Your task to perform on an android device: open app "eBay: The shopping marketplace" (install if not already installed) and enter user name: "articulated@icloud.com" and password: "excluding" Image 0: 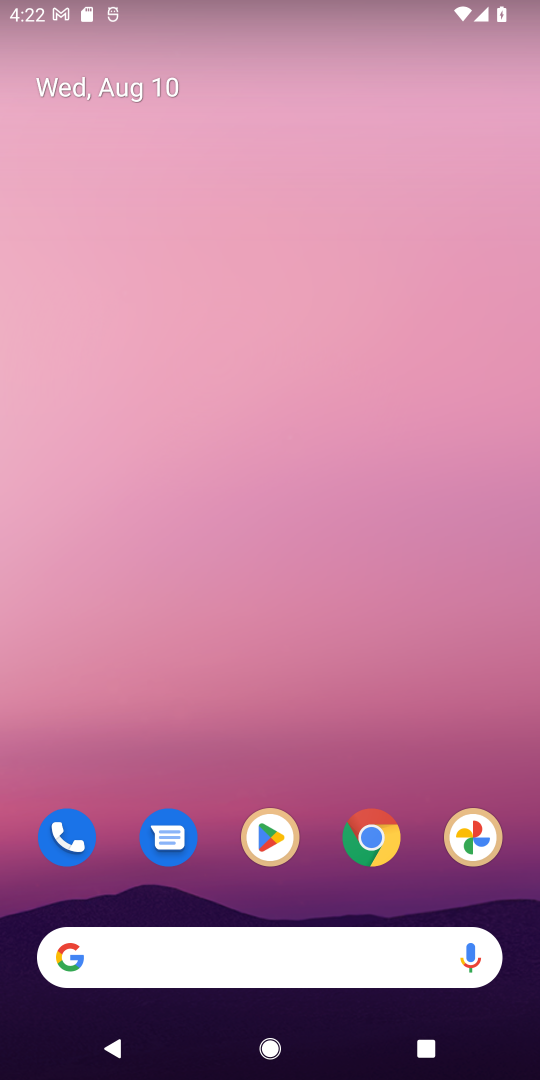
Step 0: press home button
Your task to perform on an android device: open app "eBay: The shopping marketplace" (install if not already installed) and enter user name: "articulated@icloud.com" and password: "excluding" Image 1: 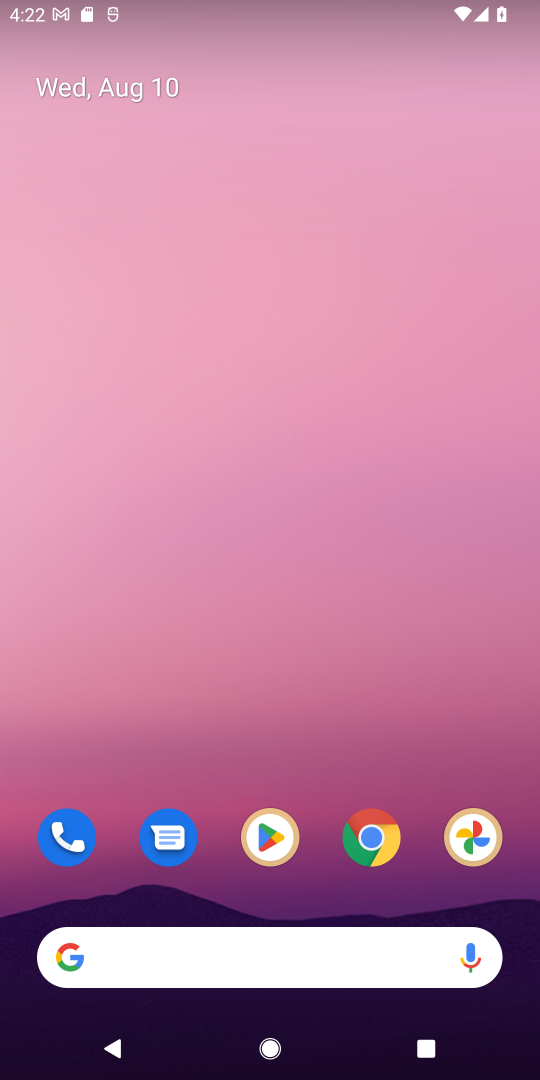
Step 1: click (268, 836)
Your task to perform on an android device: open app "eBay: The shopping marketplace" (install if not already installed) and enter user name: "articulated@icloud.com" and password: "excluding" Image 2: 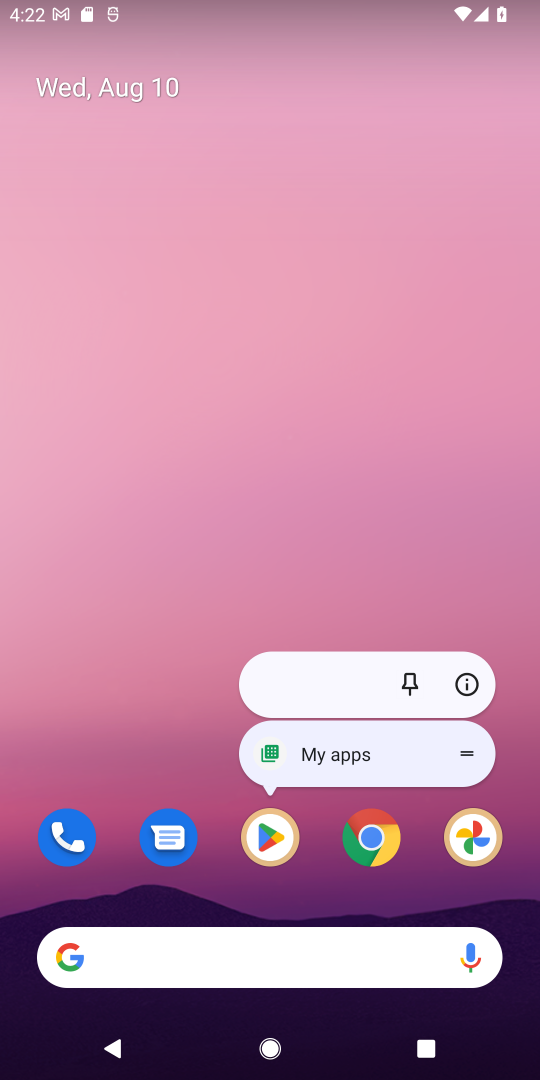
Step 2: click (268, 835)
Your task to perform on an android device: open app "eBay: The shopping marketplace" (install if not already installed) and enter user name: "articulated@icloud.com" and password: "excluding" Image 3: 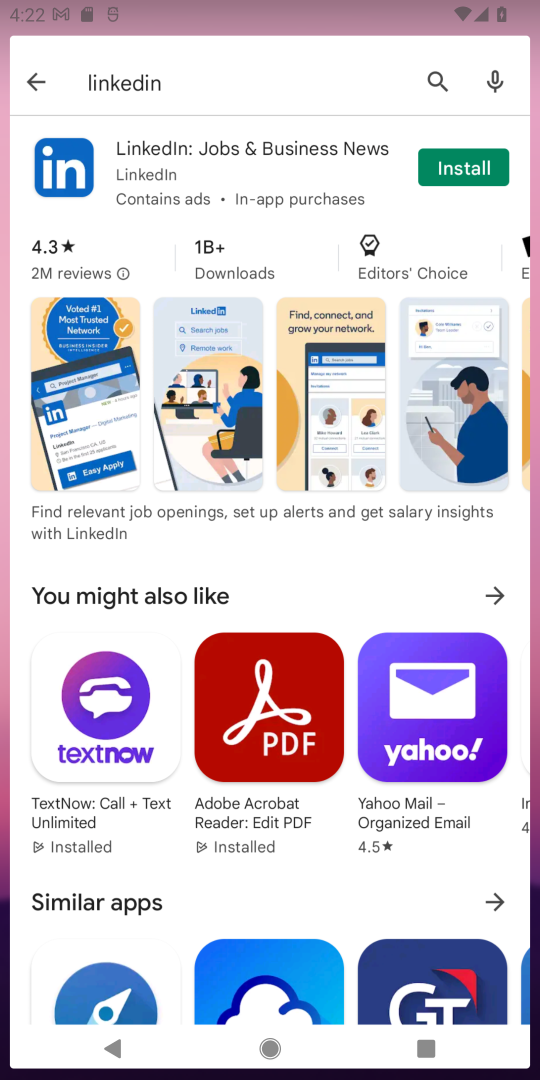
Step 3: click (268, 838)
Your task to perform on an android device: open app "eBay: The shopping marketplace" (install if not already installed) and enter user name: "articulated@icloud.com" and password: "excluding" Image 4: 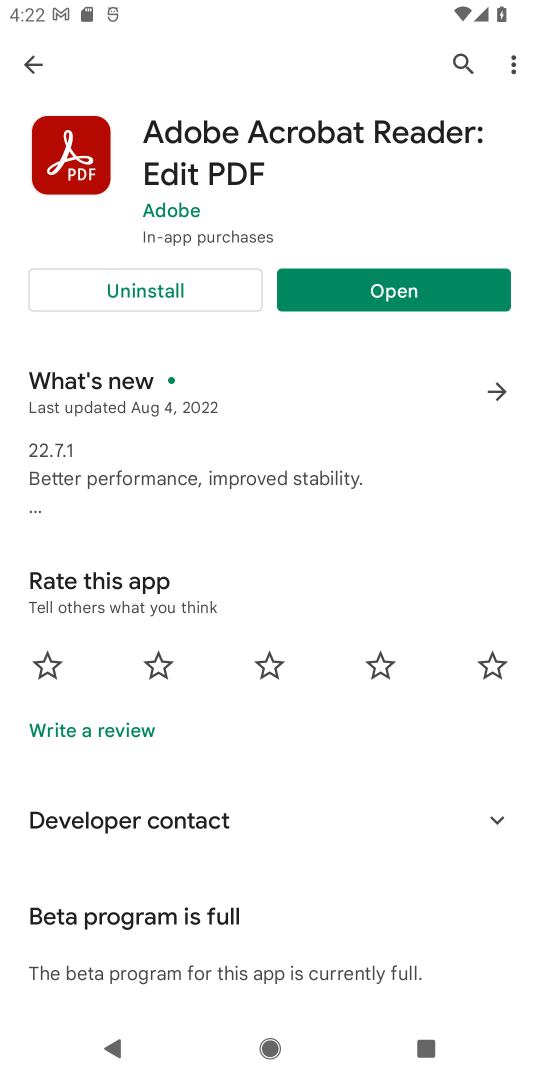
Step 4: click (452, 50)
Your task to perform on an android device: open app "eBay: The shopping marketplace" (install if not already installed) and enter user name: "articulated@icloud.com" and password: "excluding" Image 5: 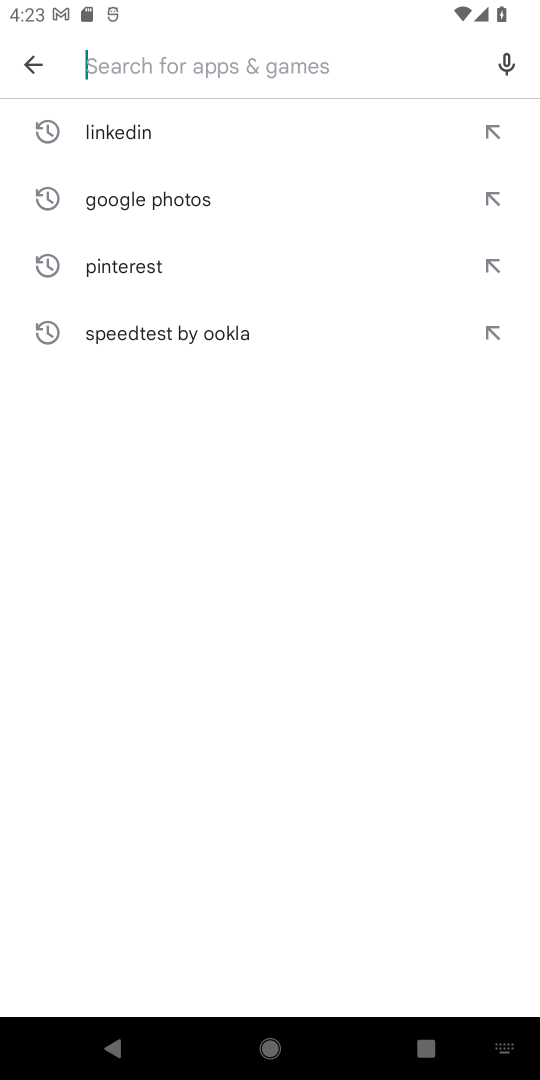
Step 5: type "eBay: The shopping marketplace"
Your task to perform on an android device: open app "eBay: The shopping marketplace" (install if not already installed) and enter user name: "articulated@icloud.com" and password: "excluding" Image 6: 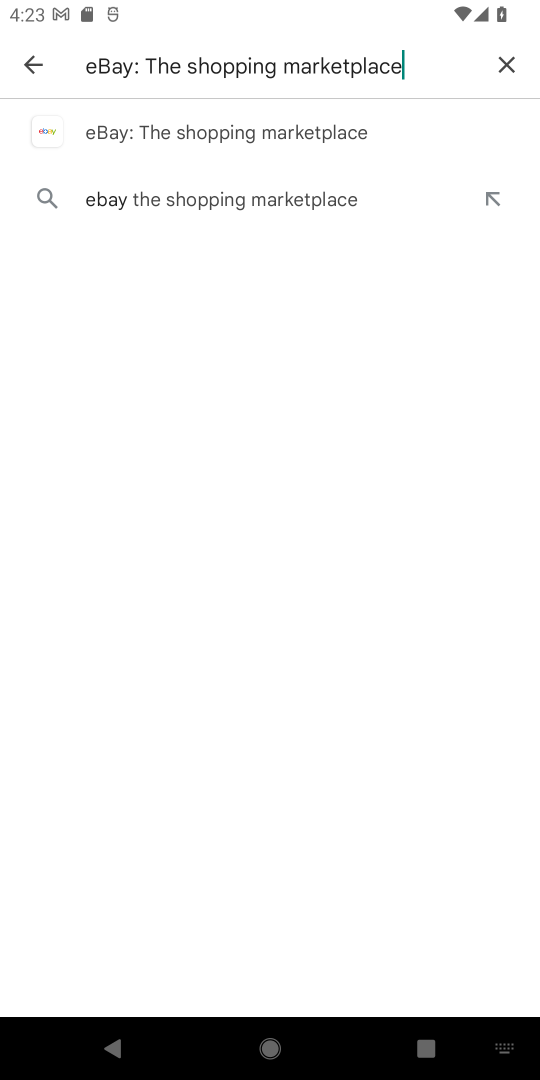
Step 6: click (262, 129)
Your task to perform on an android device: open app "eBay: The shopping marketplace" (install if not already installed) and enter user name: "articulated@icloud.com" and password: "excluding" Image 7: 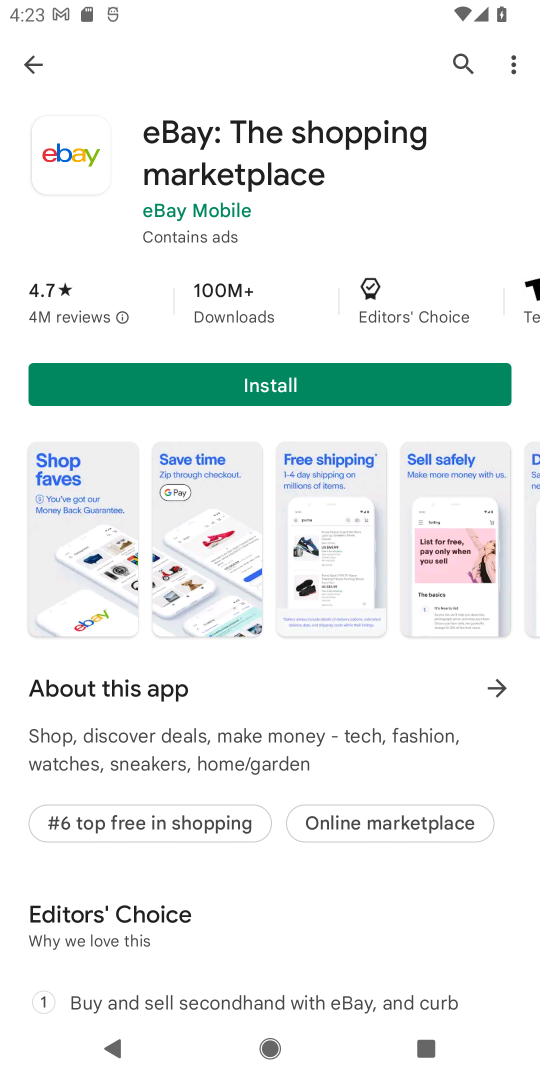
Step 7: click (264, 378)
Your task to perform on an android device: open app "eBay: The shopping marketplace" (install if not already installed) and enter user name: "articulated@icloud.com" and password: "excluding" Image 8: 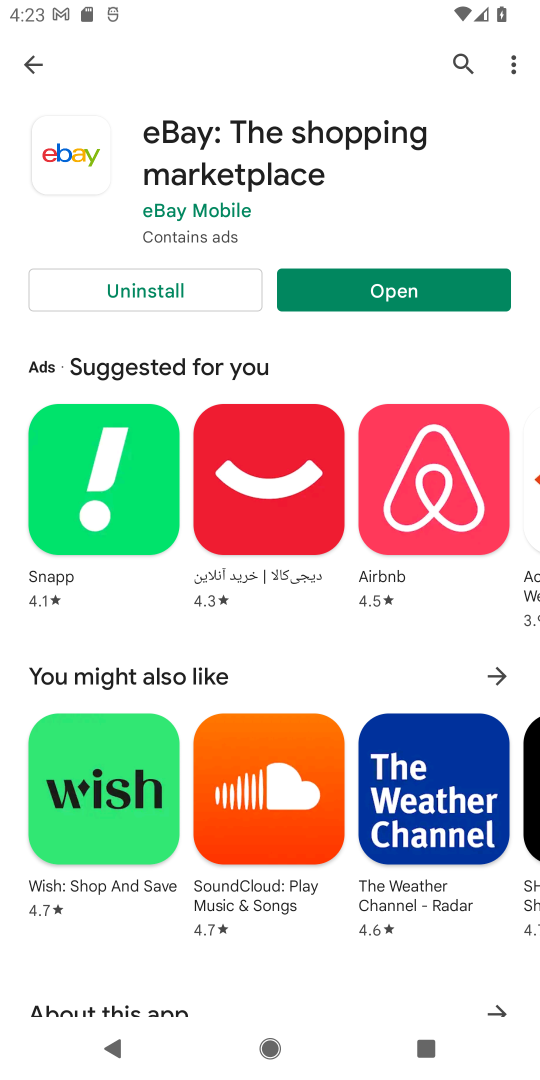
Step 8: click (423, 304)
Your task to perform on an android device: open app "eBay: The shopping marketplace" (install if not already installed) and enter user name: "articulated@icloud.com" and password: "excluding" Image 9: 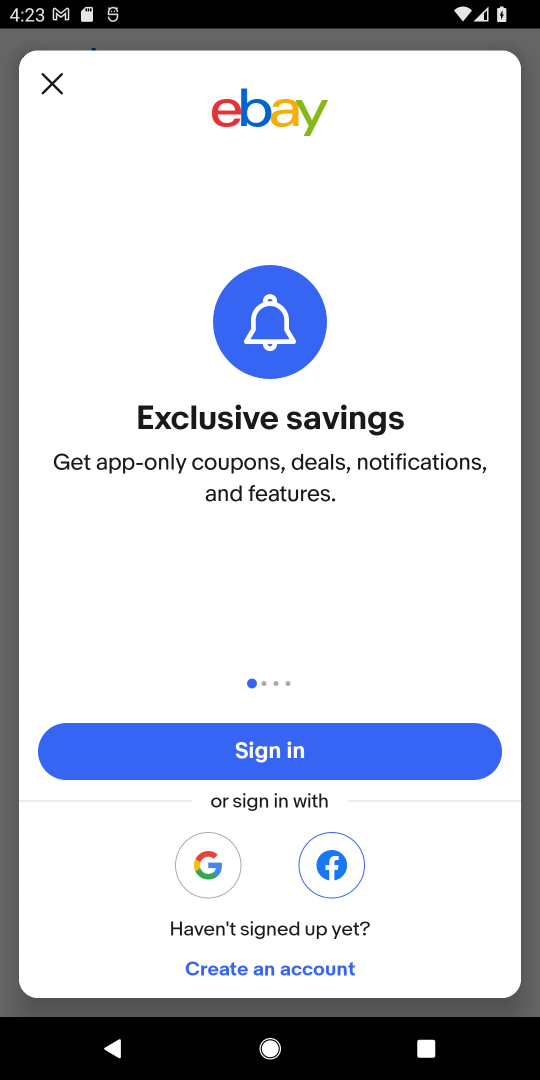
Step 9: click (273, 742)
Your task to perform on an android device: open app "eBay: The shopping marketplace" (install if not already installed) and enter user name: "articulated@icloud.com" and password: "excluding" Image 10: 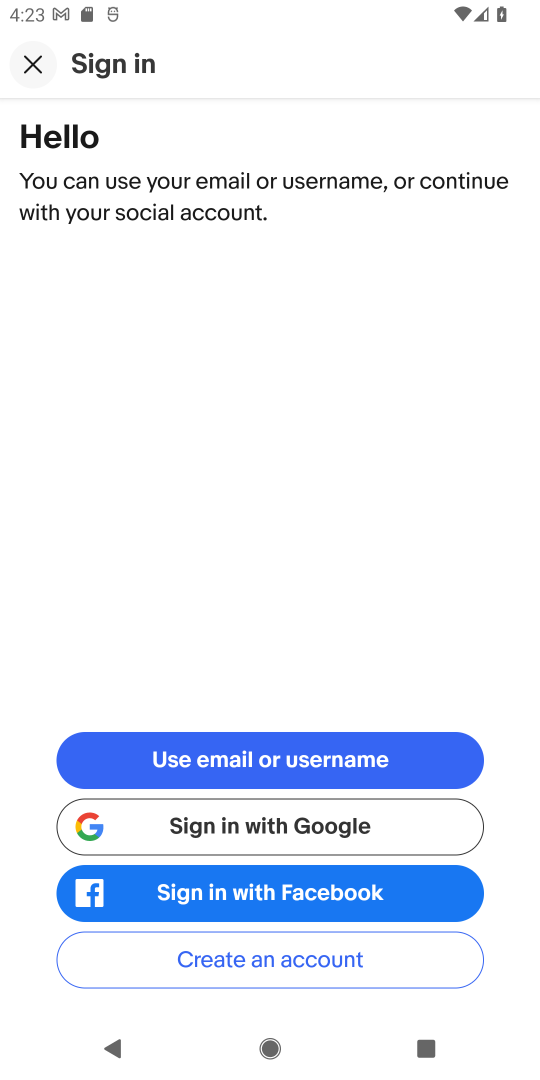
Step 10: click (325, 761)
Your task to perform on an android device: open app "eBay: The shopping marketplace" (install if not already installed) and enter user name: "articulated@icloud.com" and password: "excluding" Image 11: 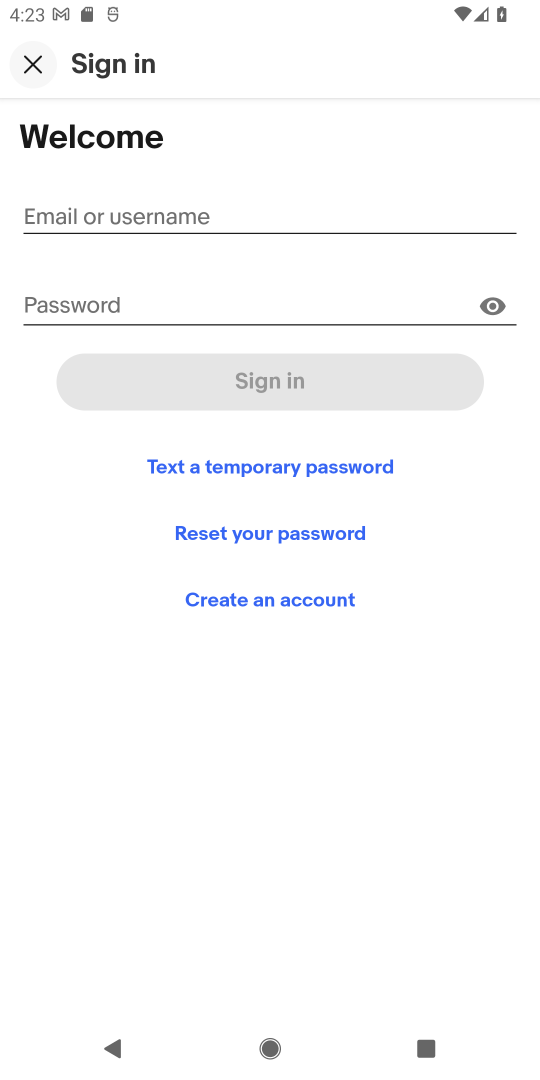
Step 11: click (193, 201)
Your task to perform on an android device: open app "eBay: The shopping marketplace" (install if not already installed) and enter user name: "articulated@icloud.com" and password: "excluding" Image 12: 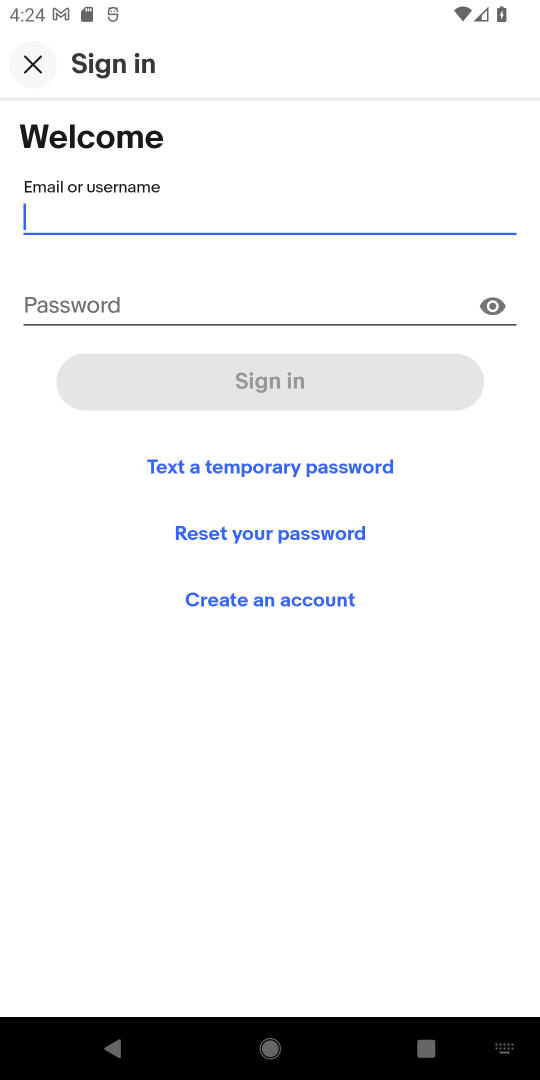
Step 12: type "articulated@icloud.com"
Your task to perform on an android device: open app "eBay: The shopping marketplace" (install if not already installed) and enter user name: "articulated@icloud.com" and password: "excluding" Image 13: 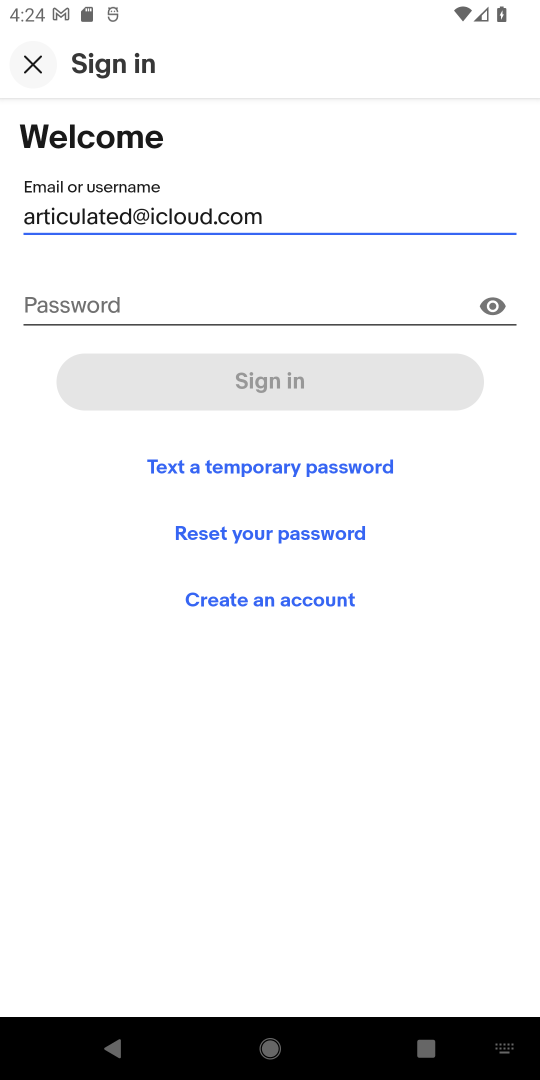
Step 13: click (86, 296)
Your task to perform on an android device: open app "eBay: The shopping marketplace" (install if not already installed) and enter user name: "articulated@icloud.com" and password: "excluding" Image 14: 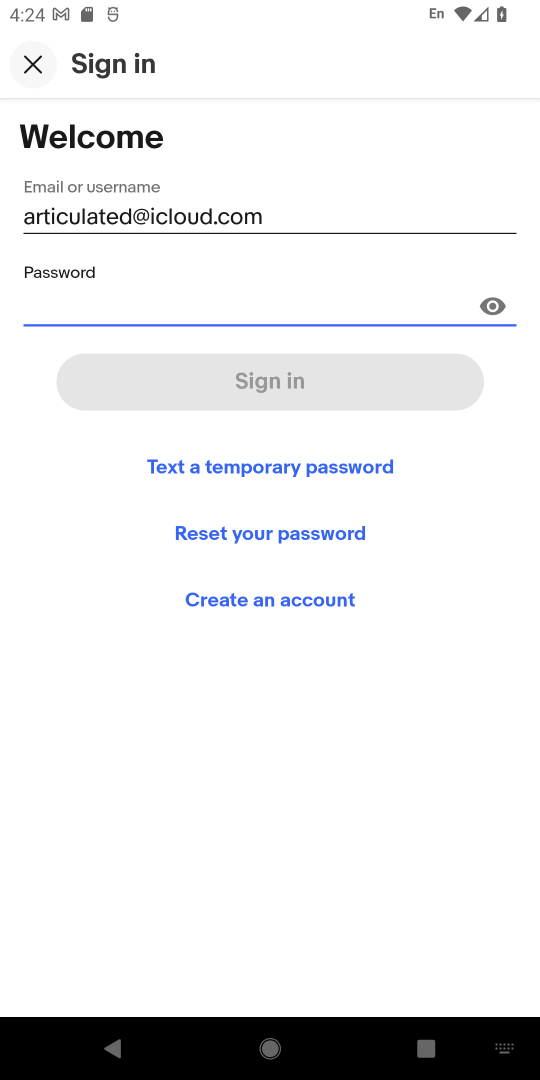
Step 14: type "excluding"
Your task to perform on an android device: open app "eBay: The shopping marketplace" (install if not already installed) and enter user name: "articulated@icloud.com" and password: "excluding" Image 15: 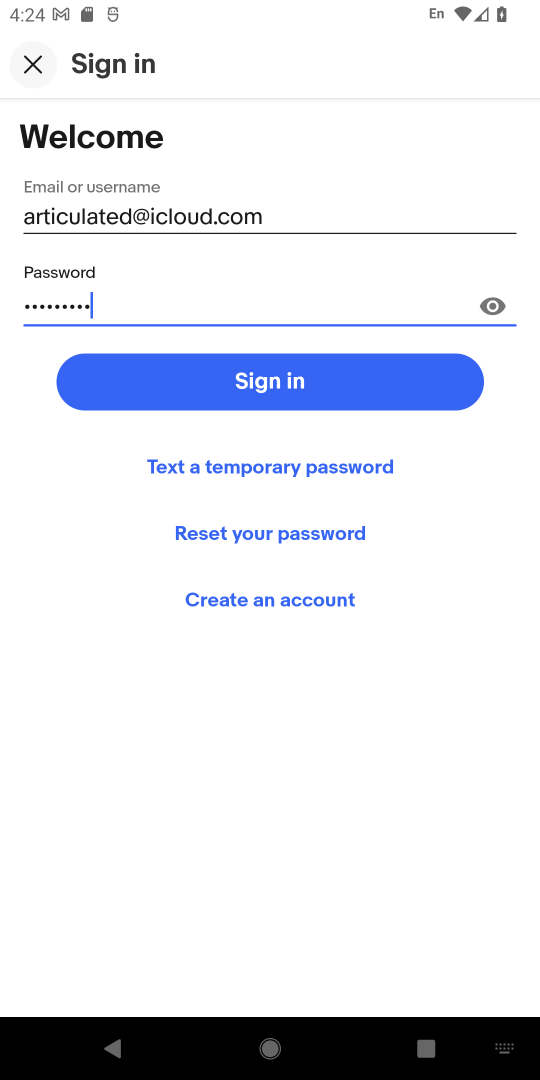
Step 15: task complete